Your task to perform on an android device: toggle javascript in the chrome app Image 0: 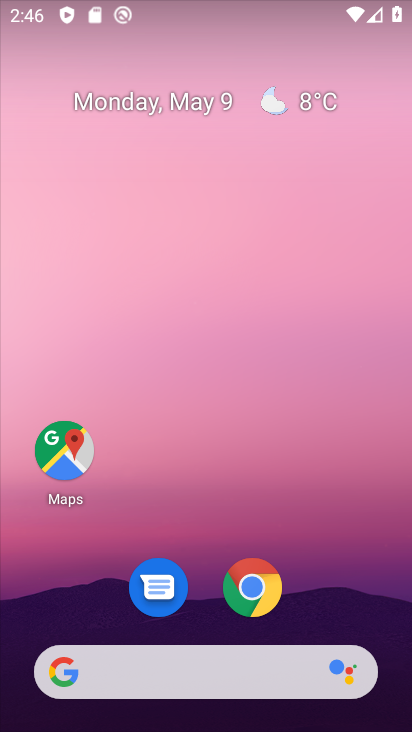
Step 0: drag from (202, 549) to (190, 212)
Your task to perform on an android device: toggle javascript in the chrome app Image 1: 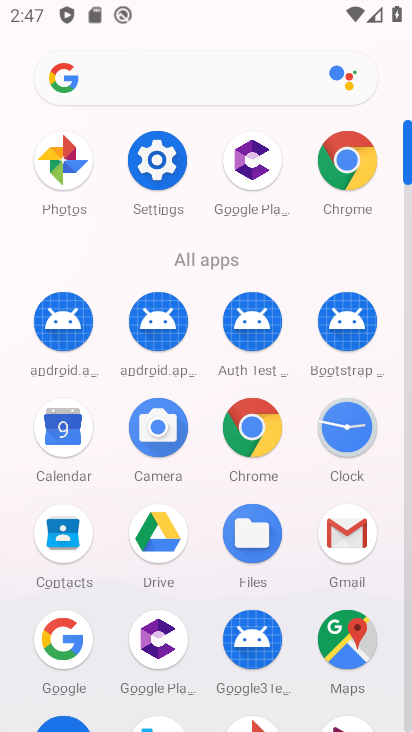
Step 1: click (249, 441)
Your task to perform on an android device: toggle javascript in the chrome app Image 2: 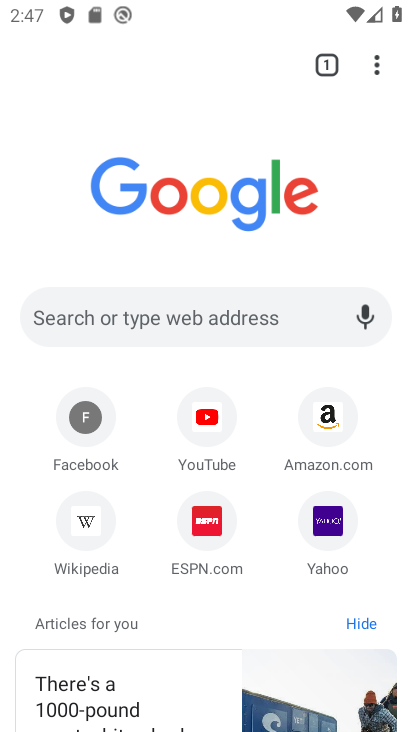
Step 2: click (379, 65)
Your task to perform on an android device: toggle javascript in the chrome app Image 3: 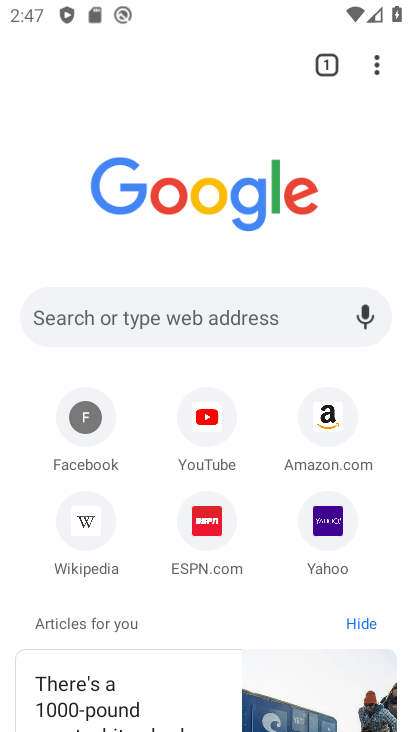
Step 3: click (374, 79)
Your task to perform on an android device: toggle javascript in the chrome app Image 4: 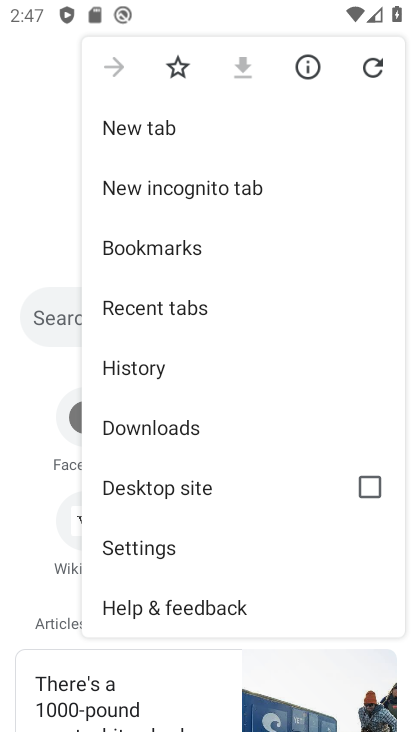
Step 4: click (184, 546)
Your task to perform on an android device: toggle javascript in the chrome app Image 5: 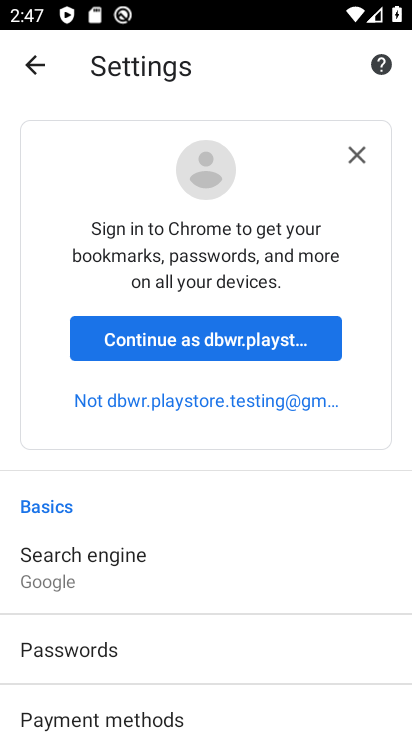
Step 5: drag from (153, 585) to (179, 115)
Your task to perform on an android device: toggle javascript in the chrome app Image 6: 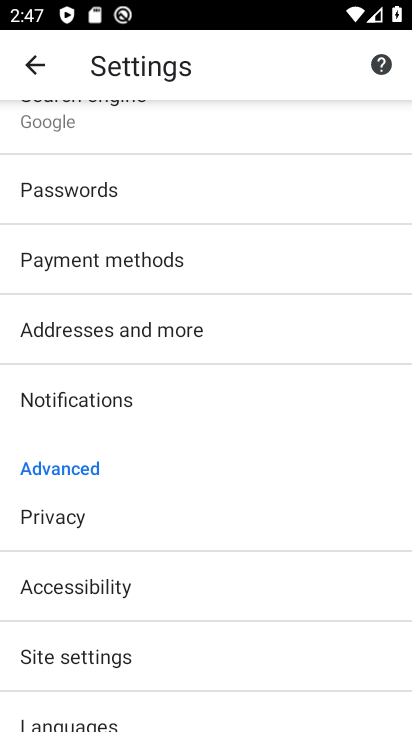
Step 6: click (130, 654)
Your task to perform on an android device: toggle javascript in the chrome app Image 7: 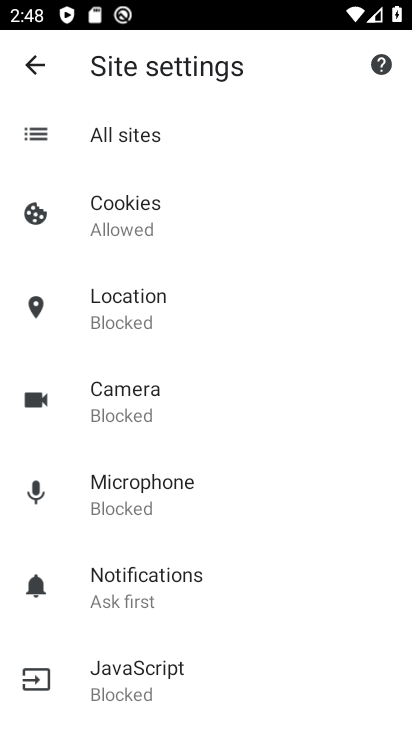
Step 7: click (188, 687)
Your task to perform on an android device: toggle javascript in the chrome app Image 8: 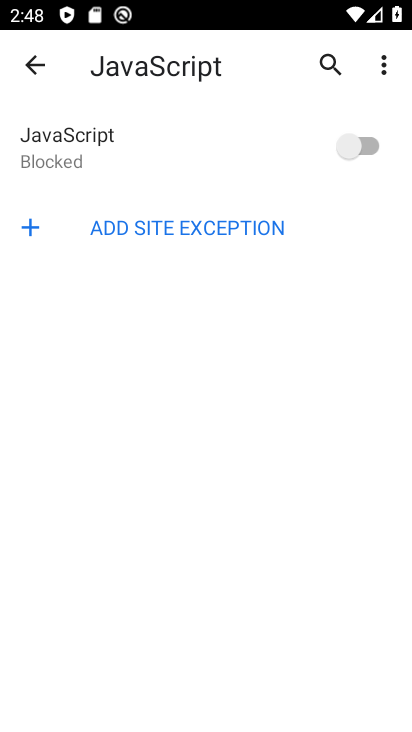
Step 8: click (369, 158)
Your task to perform on an android device: toggle javascript in the chrome app Image 9: 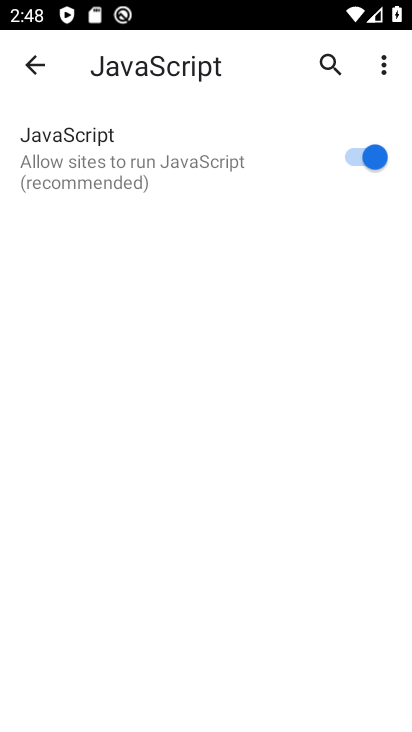
Step 9: task complete